Your task to perform on an android device: visit the assistant section in the google photos Image 0: 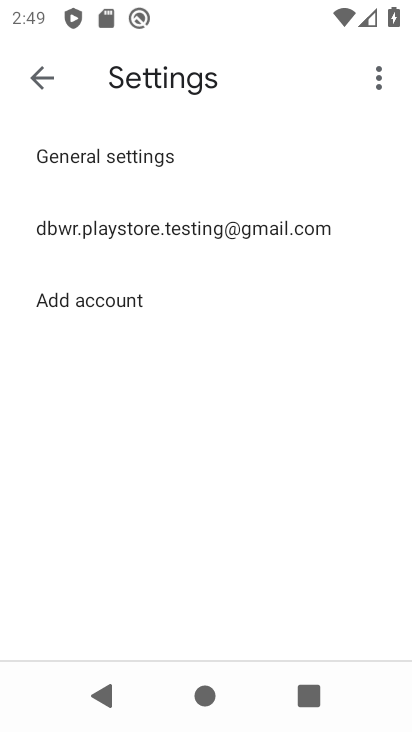
Step 0: press home button
Your task to perform on an android device: visit the assistant section in the google photos Image 1: 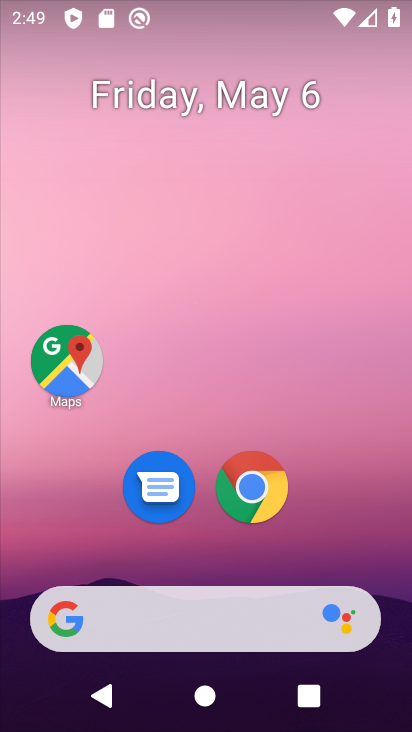
Step 1: drag from (332, 515) to (364, 161)
Your task to perform on an android device: visit the assistant section in the google photos Image 2: 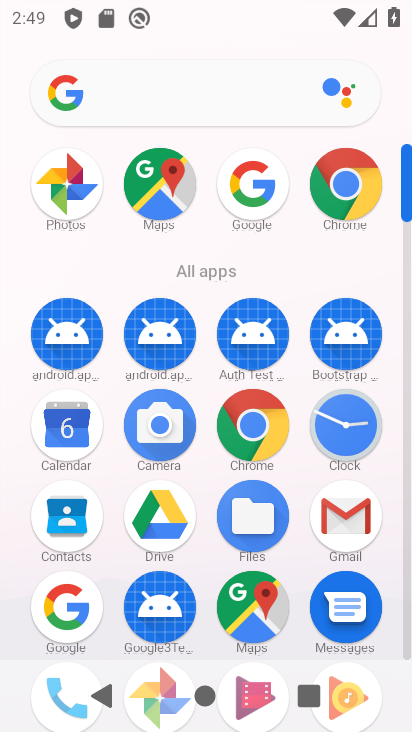
Step 2: drag from (285, 542) to (300, 198)
Your task to perform on an android device: visit the assistant section in the google photos Image 3: 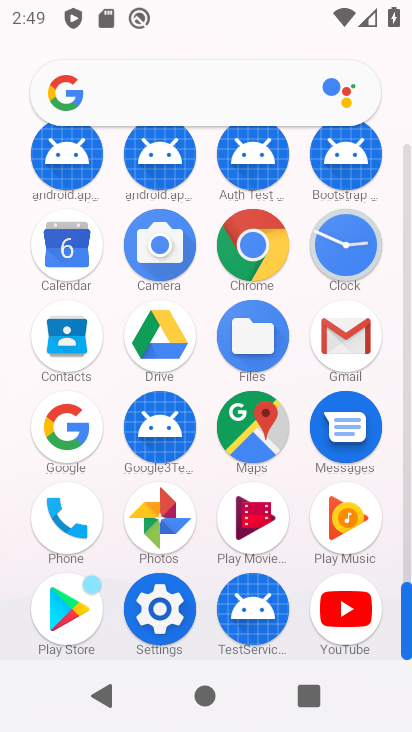
Step 3: click (148, 514)
Your task to perform on an android device: visit the assistant section in the google photos Image 4: 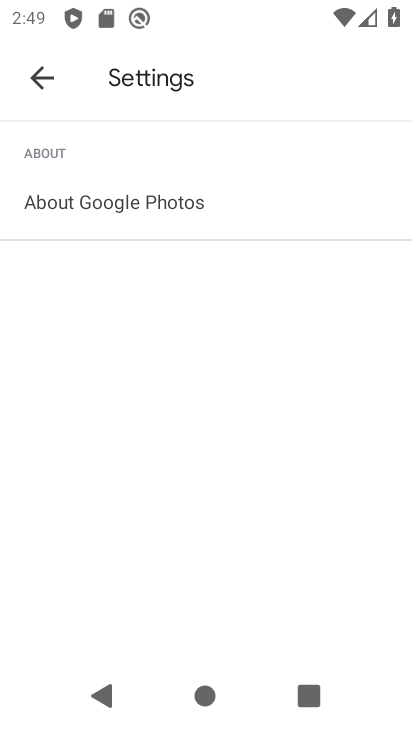
Step 4: click (40, 82)
Your task to perform on an android device: visit the assistant section in the google photos Image 5: 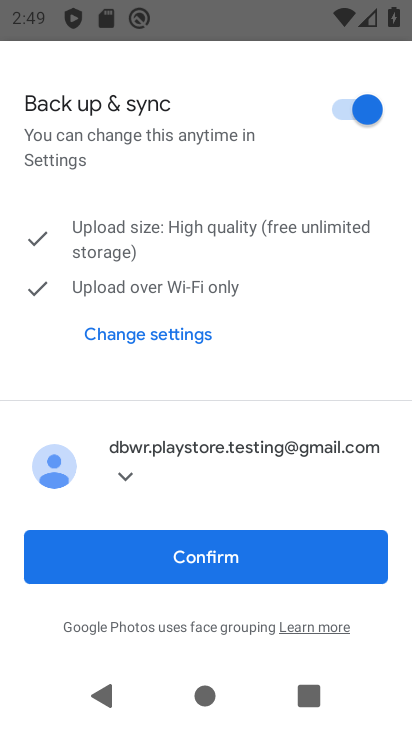
Step 5: click (224, 565)
Your task to perform on an android device: visit the assistant section in the google photos Image 6: 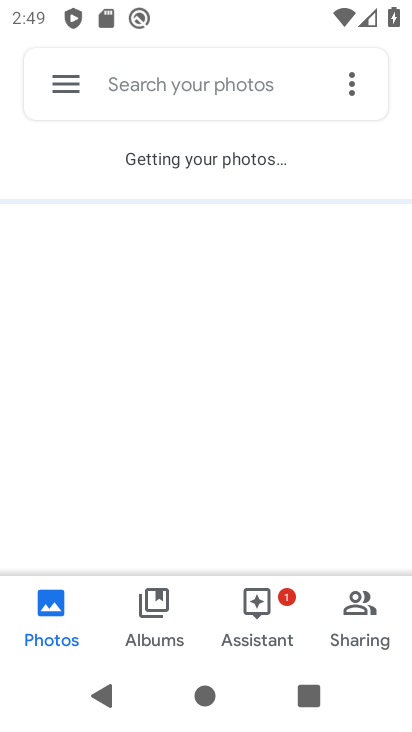
Step 6: click (263, 614)
Your task to perform on an android device: visit the assistant section in the google photos Image 7: 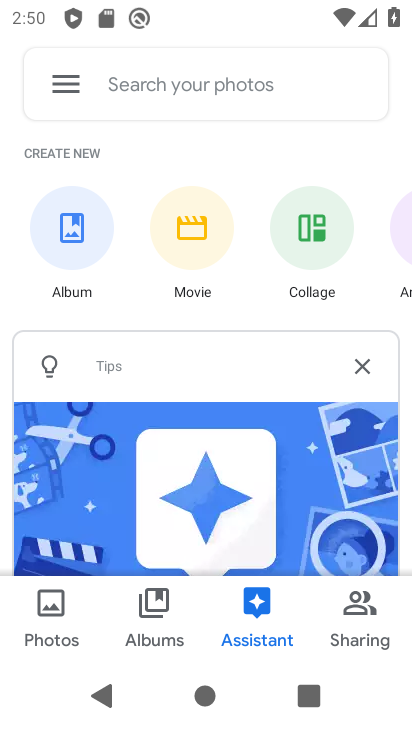
Step 7: task complete